Your task to perform on an android device: Open Yahoo.com Image 0: 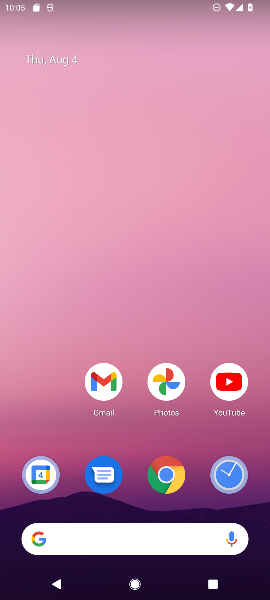
Step 0: drag from (148, 473) to (215, 61)
Your task to perform on an android device: Open Yahoo.com Image 1: 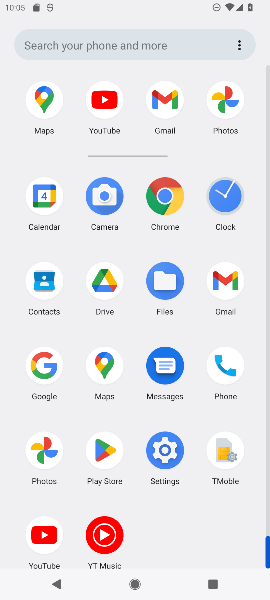
Step 1: click (160, 204)
Your task to perform on an android device: Open Yahoo.com Image 2: 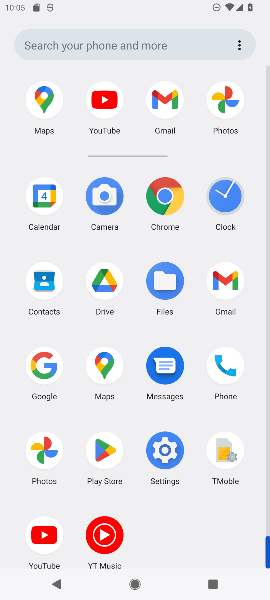
Step 2: click (160, 204)
Your task to perform on an android device: Open Yahoo.com Image 3: 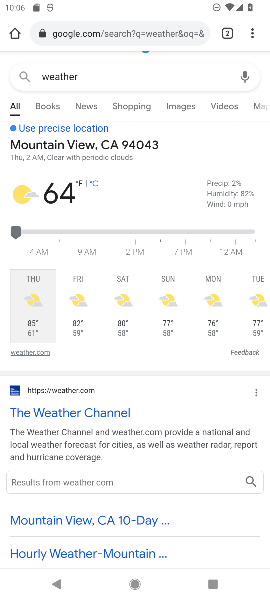
Step 3: drag from (175, 474) to (185, 168)
Your task to perform on an android device: Open Yahoo.com Image 4: 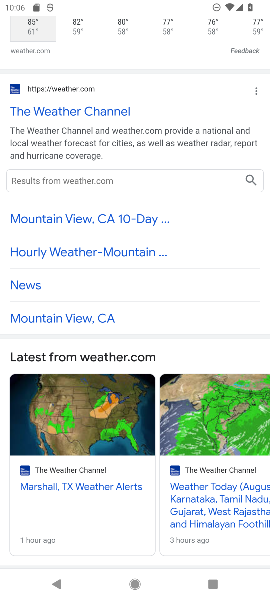
Step 4: drag from (194, 104) to (229, 598)
Your task to perform on an android device: Open Yahoo.com Image 5: 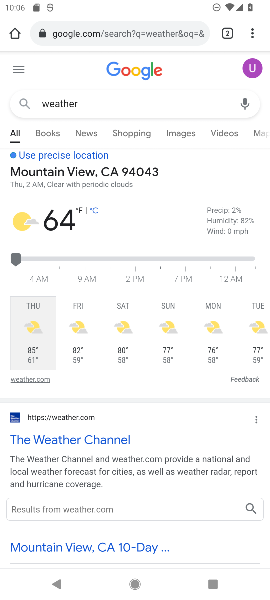
Step 5: click (127, 36)
Your task to perform on an android device: Open Yahoo.com Image 6: 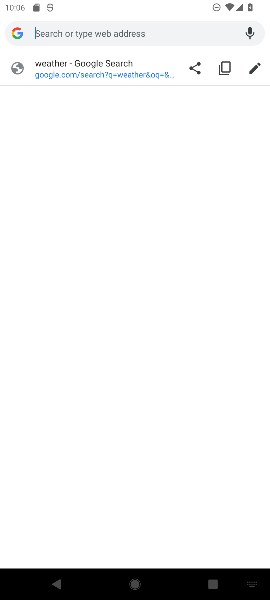
Step 6: click (86, 33)
Your task to perform on an android device: Open Yahoo.com Image 7: 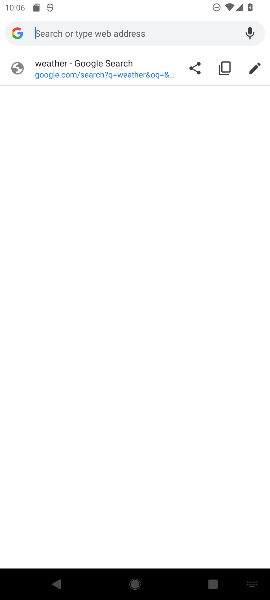
Step 7: type "Open Yahoo.com"
Your task to perform on an android device: Open Yahoo.com Image 8: 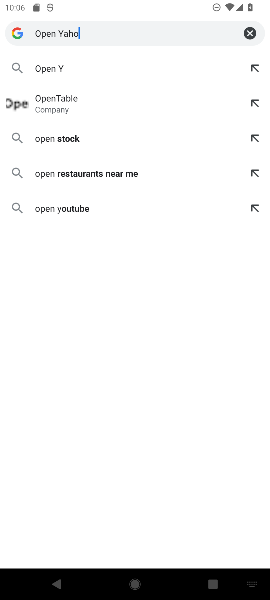
Step 8: type ""
Your task to perform on an android device: Open Yahoo.com Image 9: 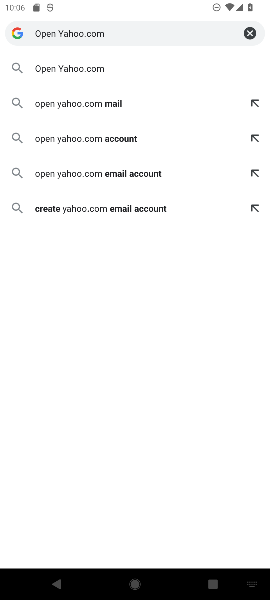
Step 9: click (67, 75)
Your task to perform on an android device: Open Yahoo.com Image 10: 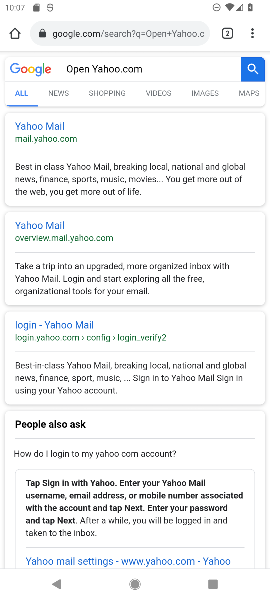
Step 10: click (39, 123)
Your task to perform on an android device: Open Yahoo.com Image 11: 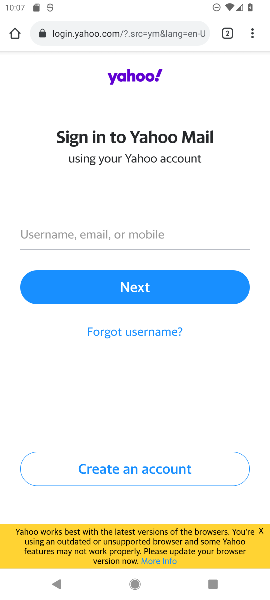
Step 11: task complete